Your task to perform on an android device: Open Google Chrome and click the shortcut for Amazon.com Image 0: 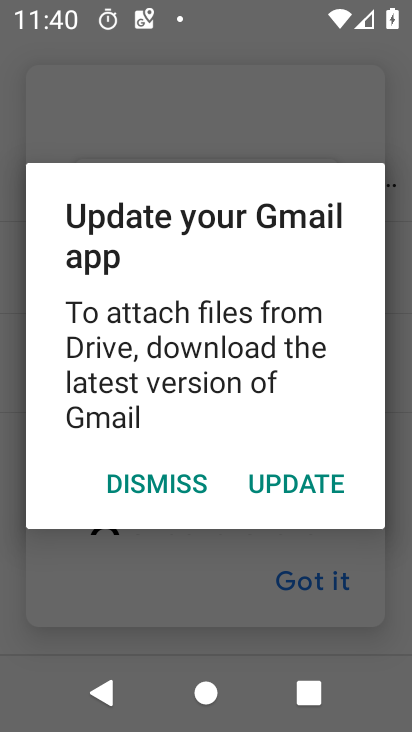
Step 0: press home button
Your task to perform on an android device: Open Google Chrome and click the shortcut for Amazon.com Image 1: 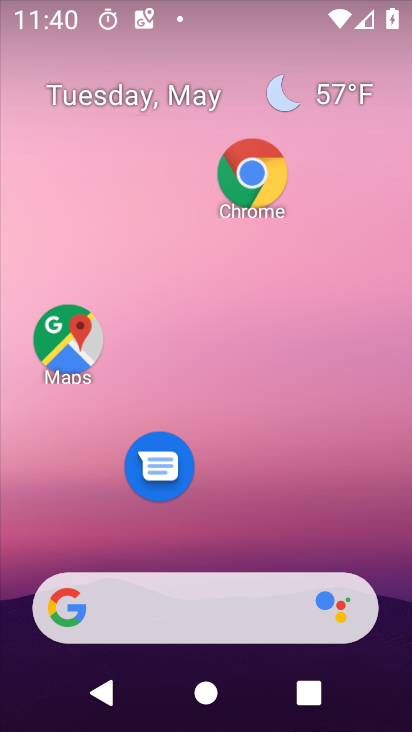
Step 1: drag from (218, 309) to (218, 143)
Your task to perform on an android device: Open Google Chrome and click the shortcut for Amazon.com Image 2: 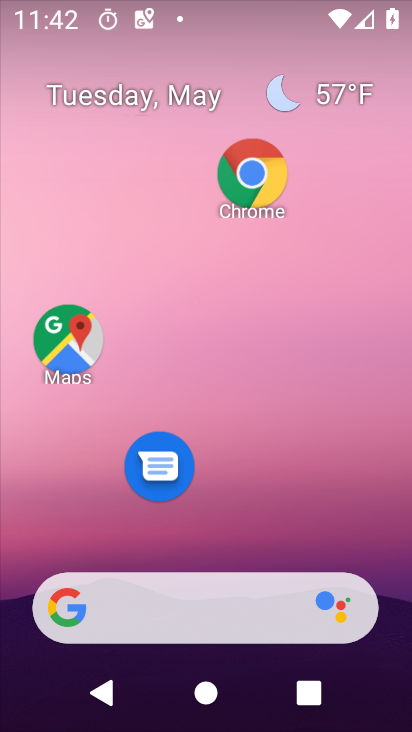
Step 2: click (252, 173)
Your task to perform on an android device: Open Google Chrome and click the shortcut for Amazon.com Image 3: 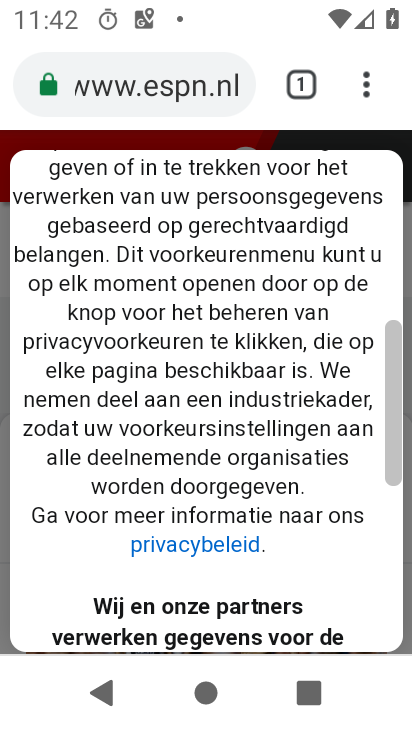
Step 3: click (311, 84)
Your task to perform on an android device: Open Google Chrome and click the shortcut for Amazon.com Image 4: 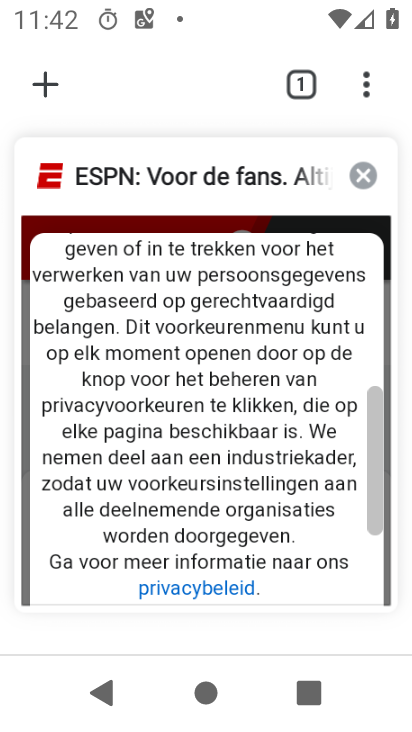
Step 4: click (368, 172)
Your task to perform on an android device: Open Google Chrome and click the shortcut for Amazon.com Image 5: 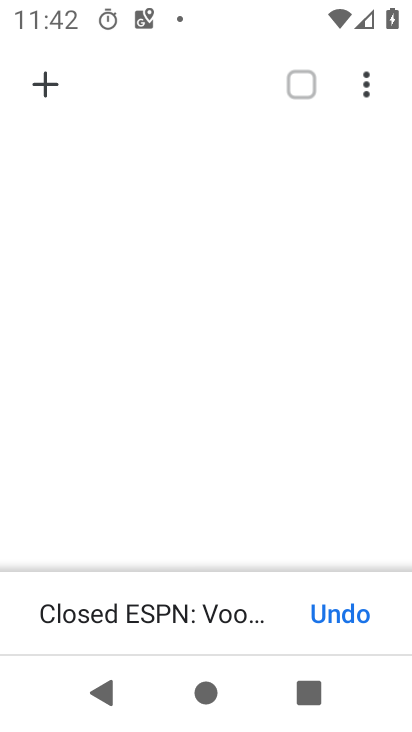
Step 5: click (41, 86)
Your task to perform on an android device: Open Google Chrome and click the shortcut for Amazon.com Image 6: 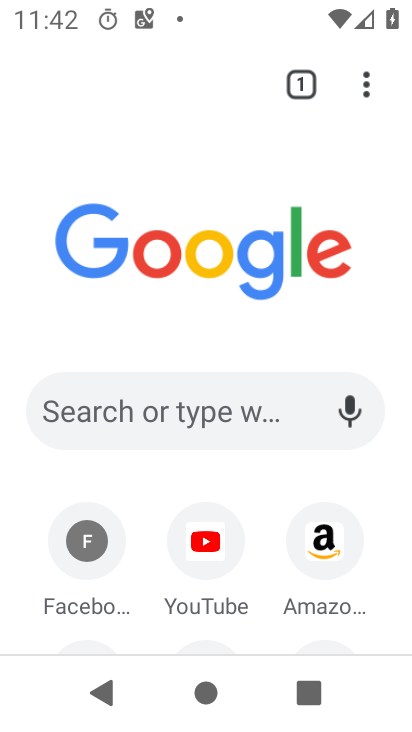
Step 6: click (324, 530)
Your task to perform on an android device: Open Google Chrome and click the shortcut for Amazon.com Image 7: 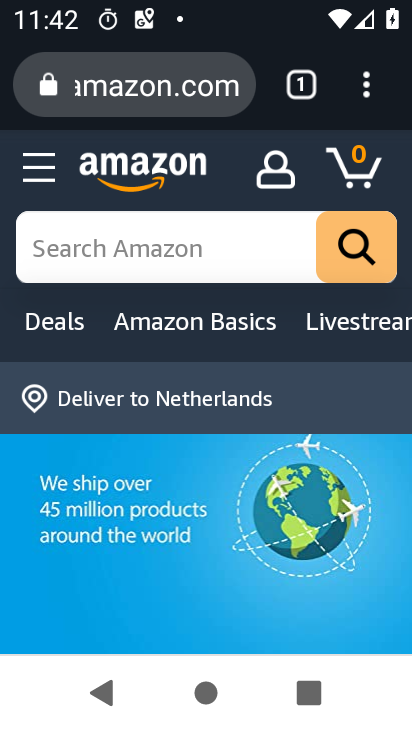
Step 7: task complete